Your task to perform on an android device: What's on my calendar tomorrow? Image 0: 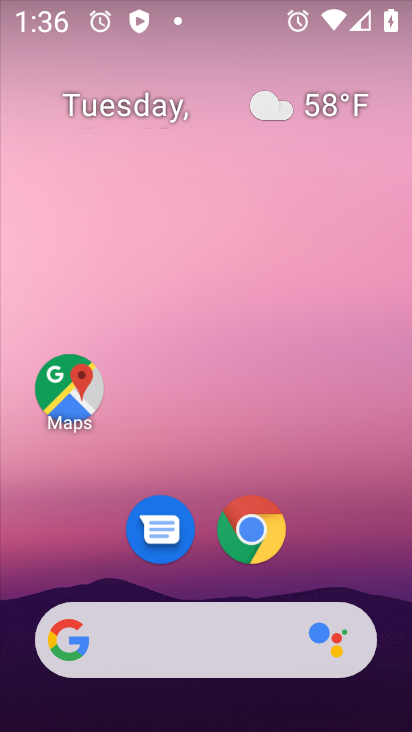
Step 0: drag from (255, 371) to (273, 48)
Your task to perform on an android device: What's on my calendar tomorrow? Image 1: 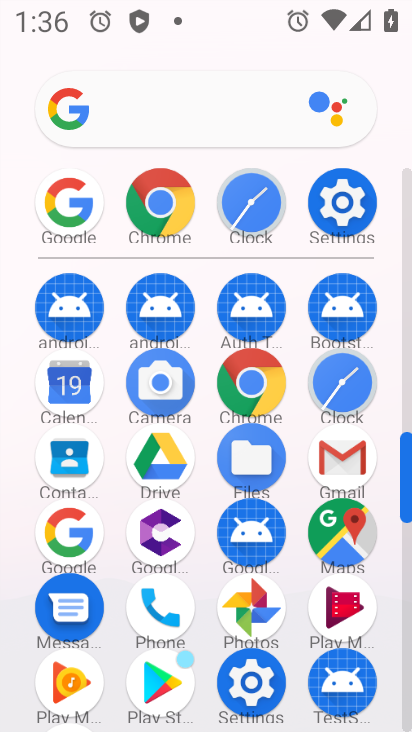
Step 1: click (80, 388)
Your task to perform on an android device: What's on my calendar tomorrow? Image 2: 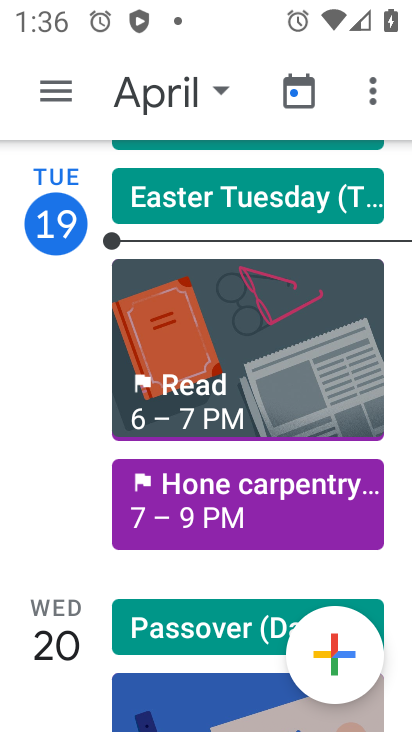
Step 2: click (179, 102)
Your task to perform on an android device: What's on my calendar tomorrow? Image 3: 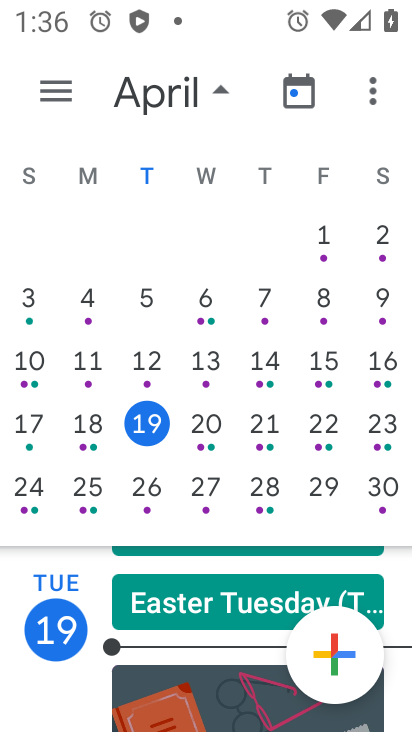
Step 3: click (208, 437)
Your task to perform on an android device: What's on my calendar tomorrow? Image 4: 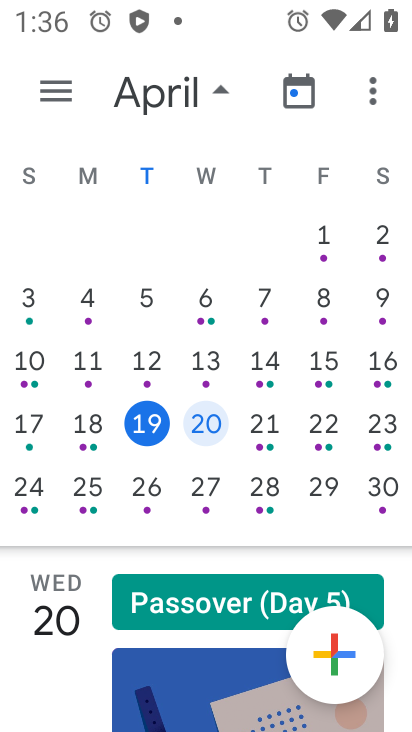
Step 4: task complete